Your task to perform on an android device: empty trash in the gmail app Image 0: 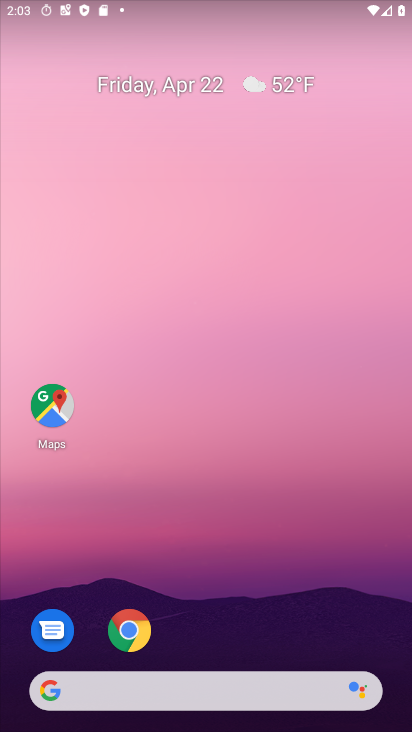
Step 0: click (322, 124)
Your task to perform on an android device: empty trash in the gmail app Image 1: 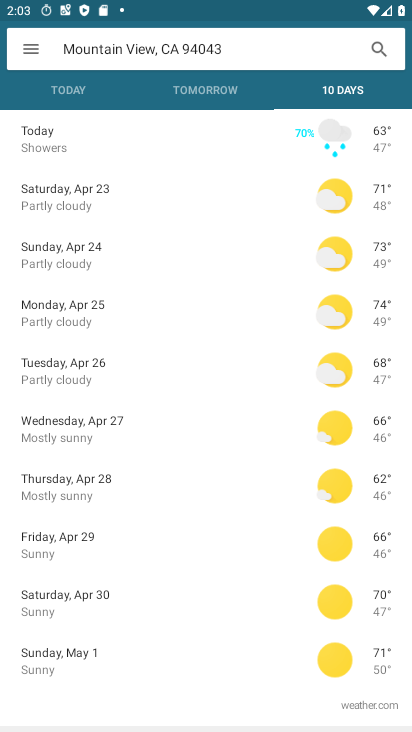
Step 1: press back button
Your task to perform on an android device: empty trash in the gmail app Image 2: 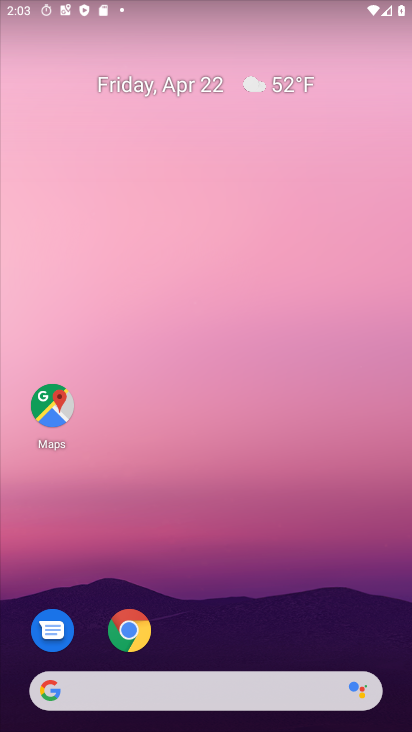
Step 2: drag from (328, 307) to (300, 151)
Your task to perform on an android device: empty trash in the gmail app Image 3: 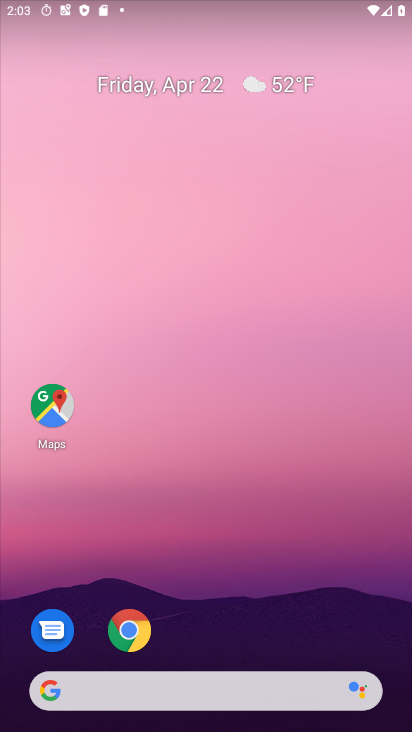
Step 3: drag from (379, 582) to (330, 204)
Your task to perform on an android device: empty trash in the gmail app Image 4: 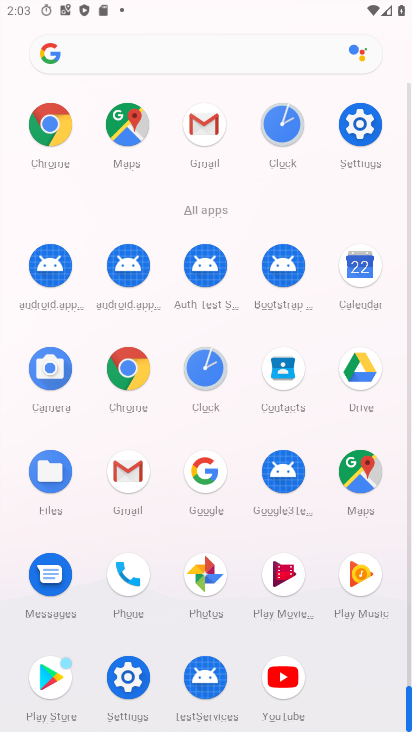
Step 4: click (120, 465)
Your task to perform on an android device: empty trash in the gmail app Image 5: 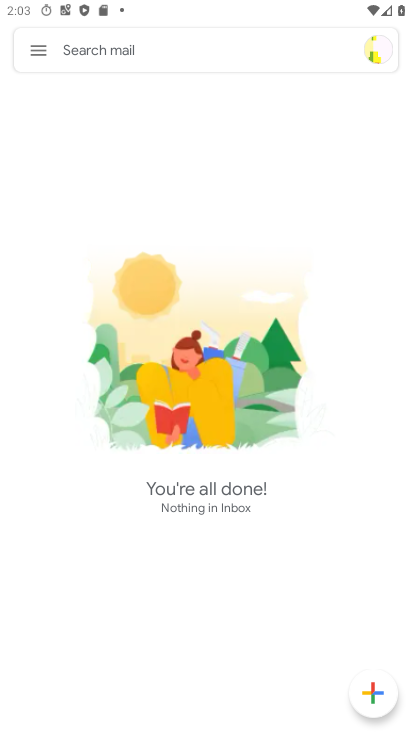
Step 5: click (35, 46)
Your task to perform on an android device: empty trash in the gmail app Image 6: 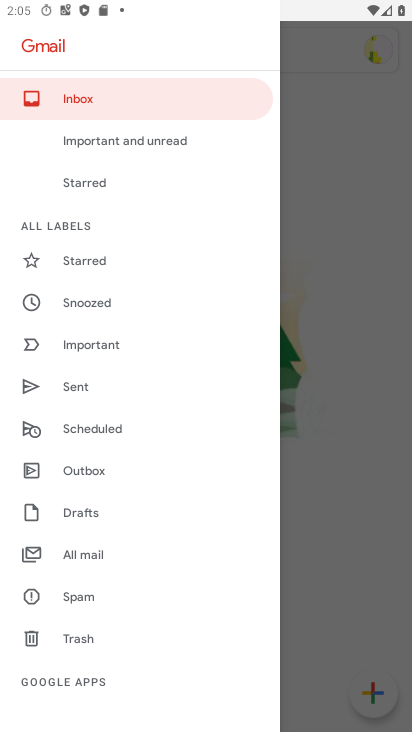
Step 6: click (64, 635)
Your task to perform on an android device: empty trash in the gmail app Image 7: 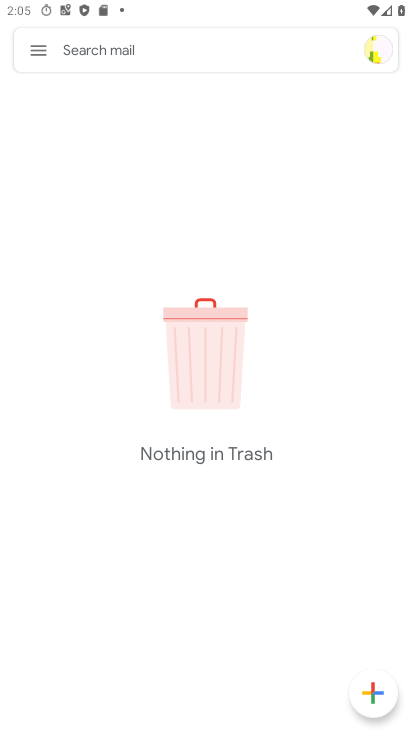
Step 7: task complete